Your task to perform on an android device: Install the Calendar app Image 0: 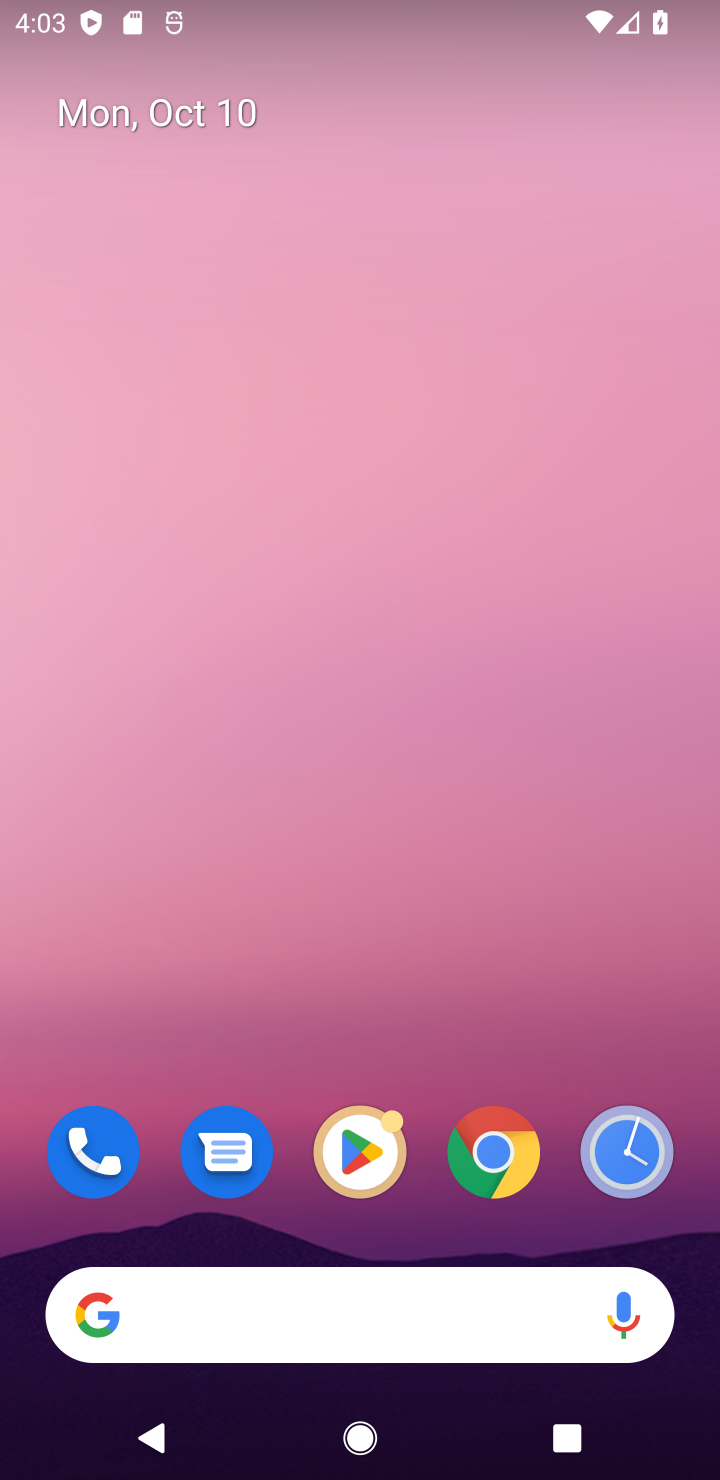
Step 0: drag from (275, 1317) to (263, 429)
Your task to perform on an android device: Install the Calendar app Image 1: 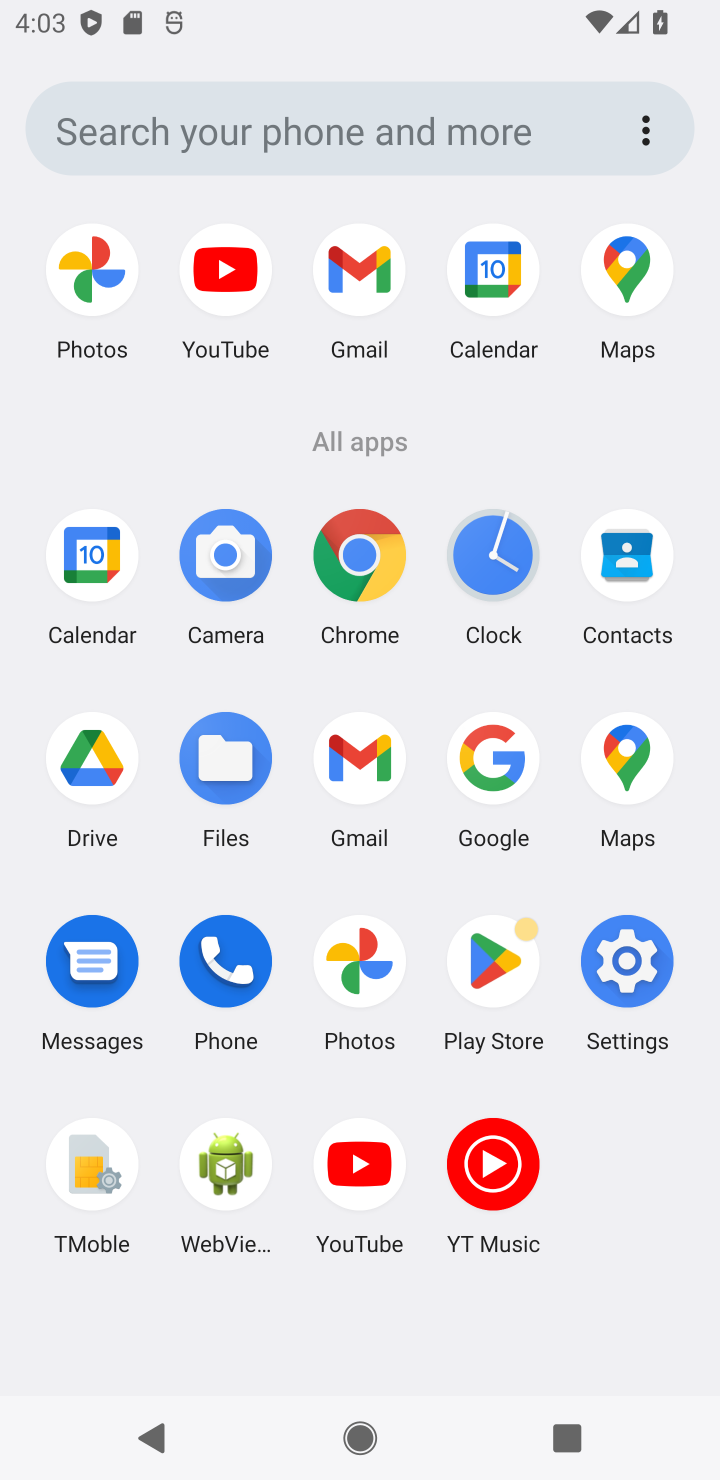
Step 1: click (503, 964)
Your task to perform on an android device: Install the Calendar app Image 2: 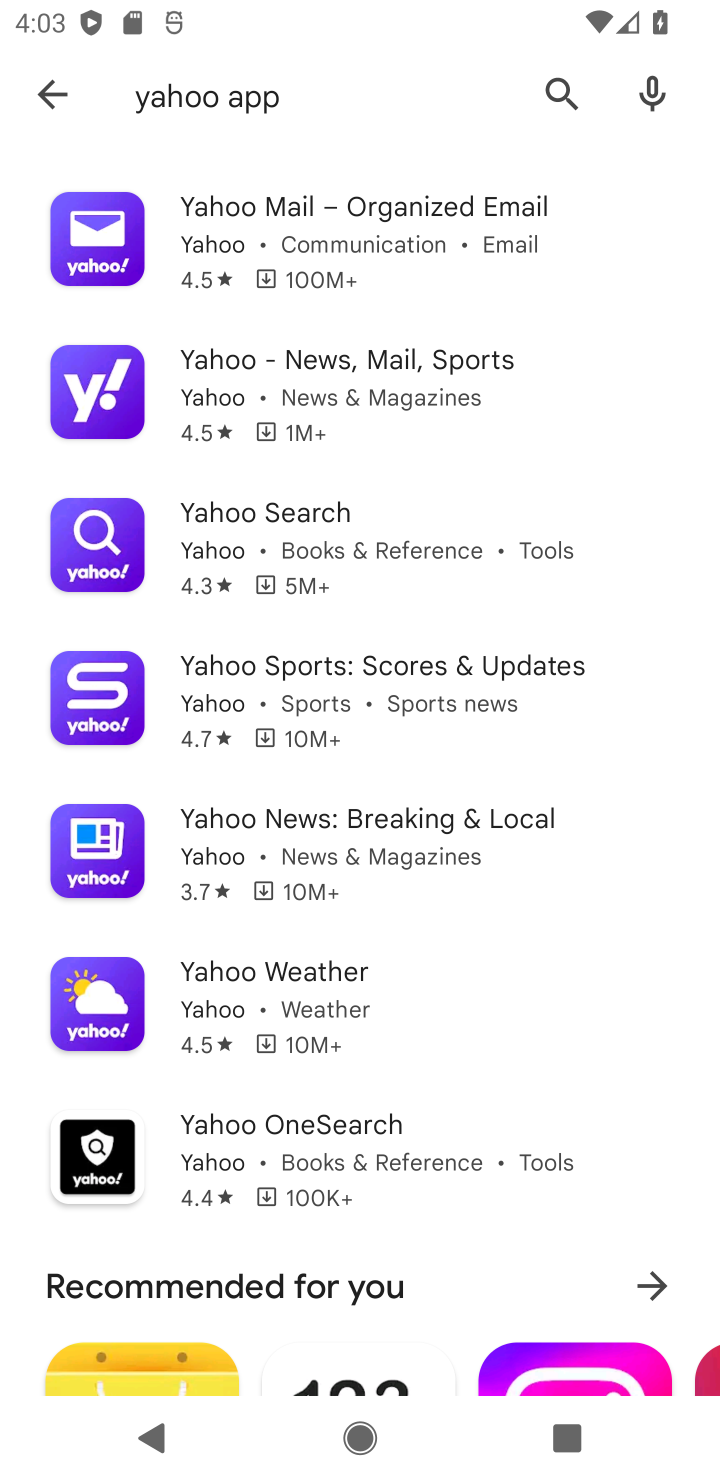
Step 2: click (556, 85)
Your task to perform on an android device: Install the Calendar app Image 3: 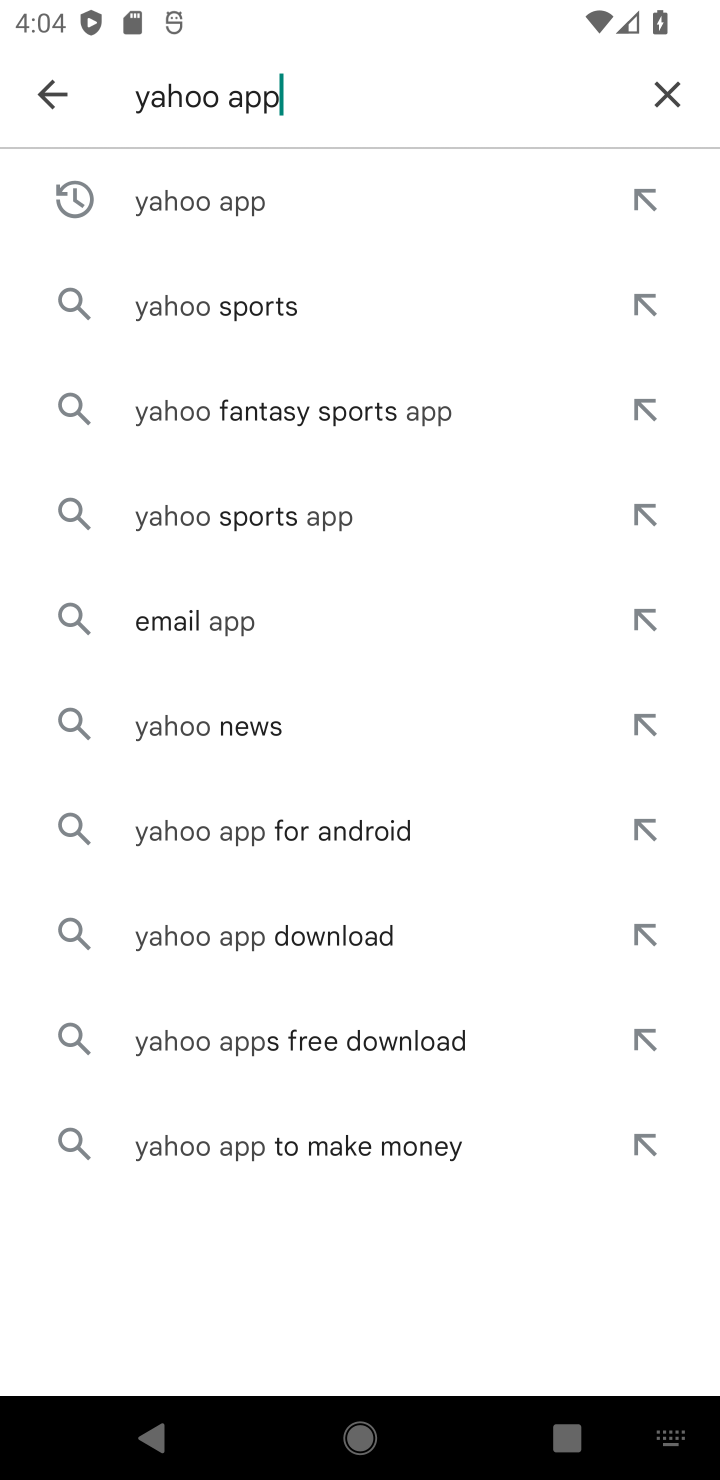
Step 3: click (654, 86)
Your task to perform on an android device: Install the Calendar app Image 4: 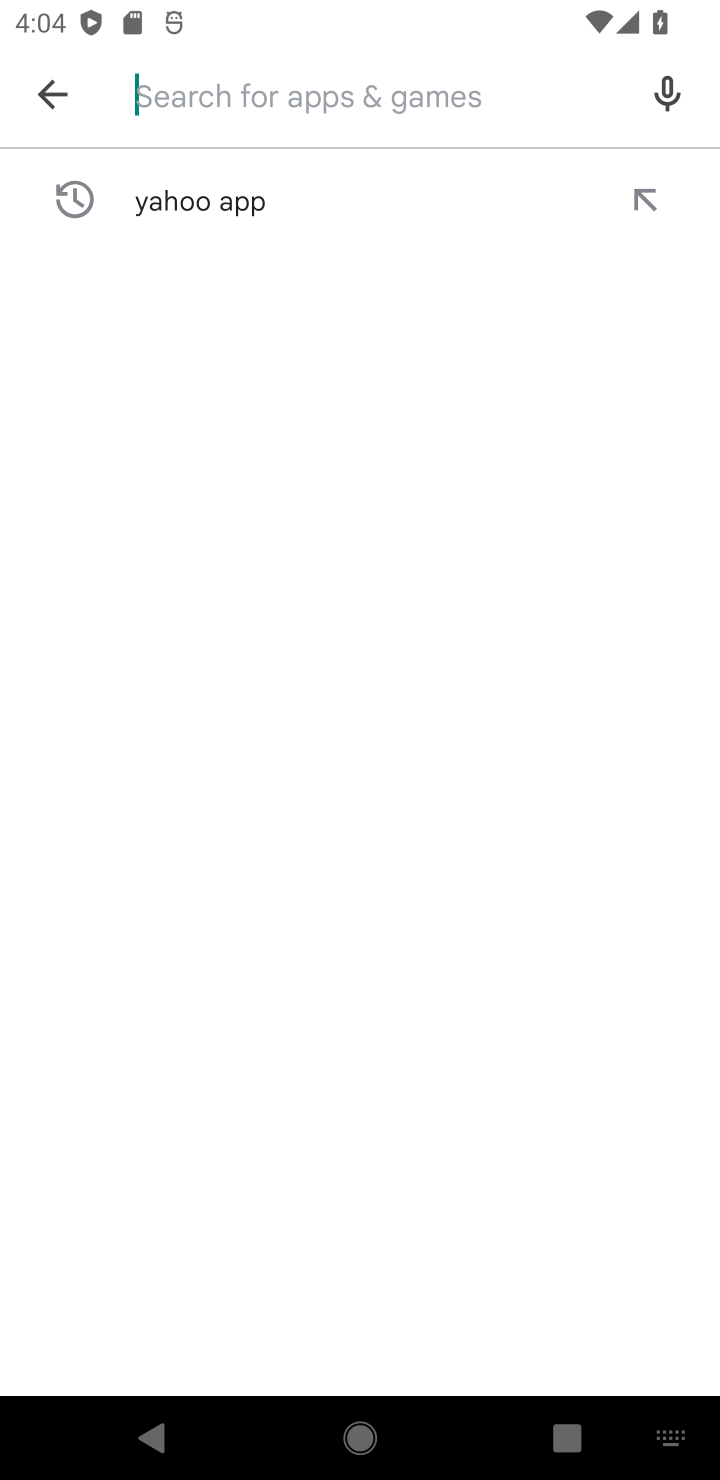
Step 4: type "Calendar app"
Your task to perform on an android device: Install the Calendar app Image 5: 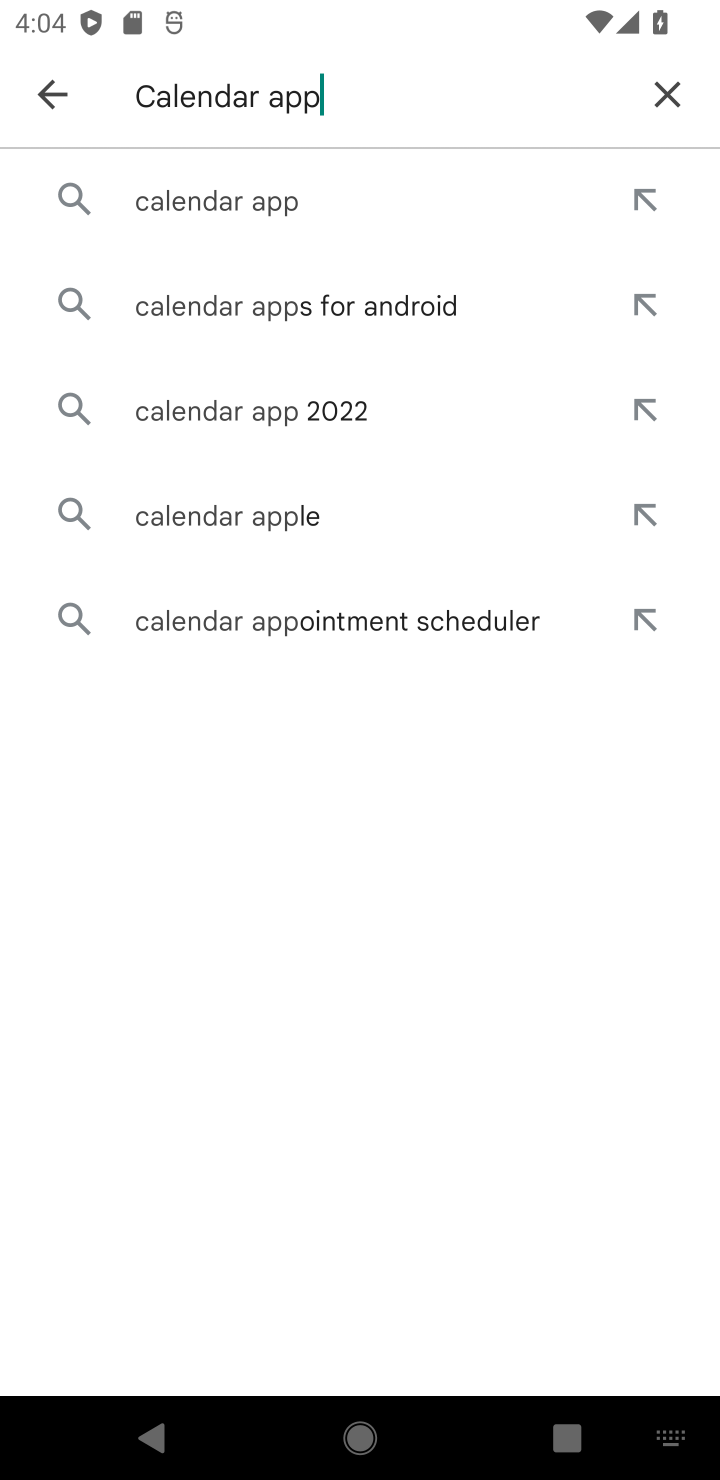
Step 5: click (178, 204)
Your task to perform on an android device: Install the Calendar app Image 6: 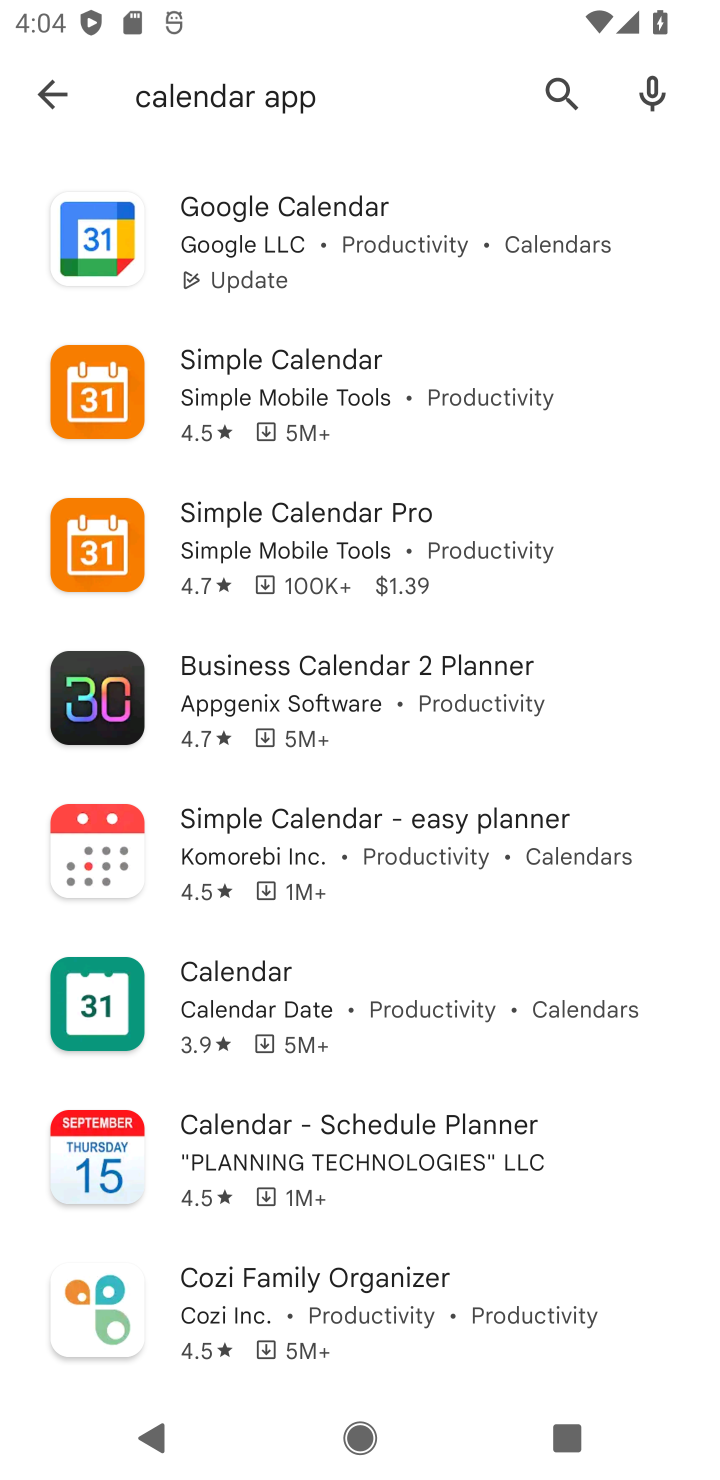
Step 6: click (285, 205)
Your task to perform on an android device: Install the Calendar app Image 7: 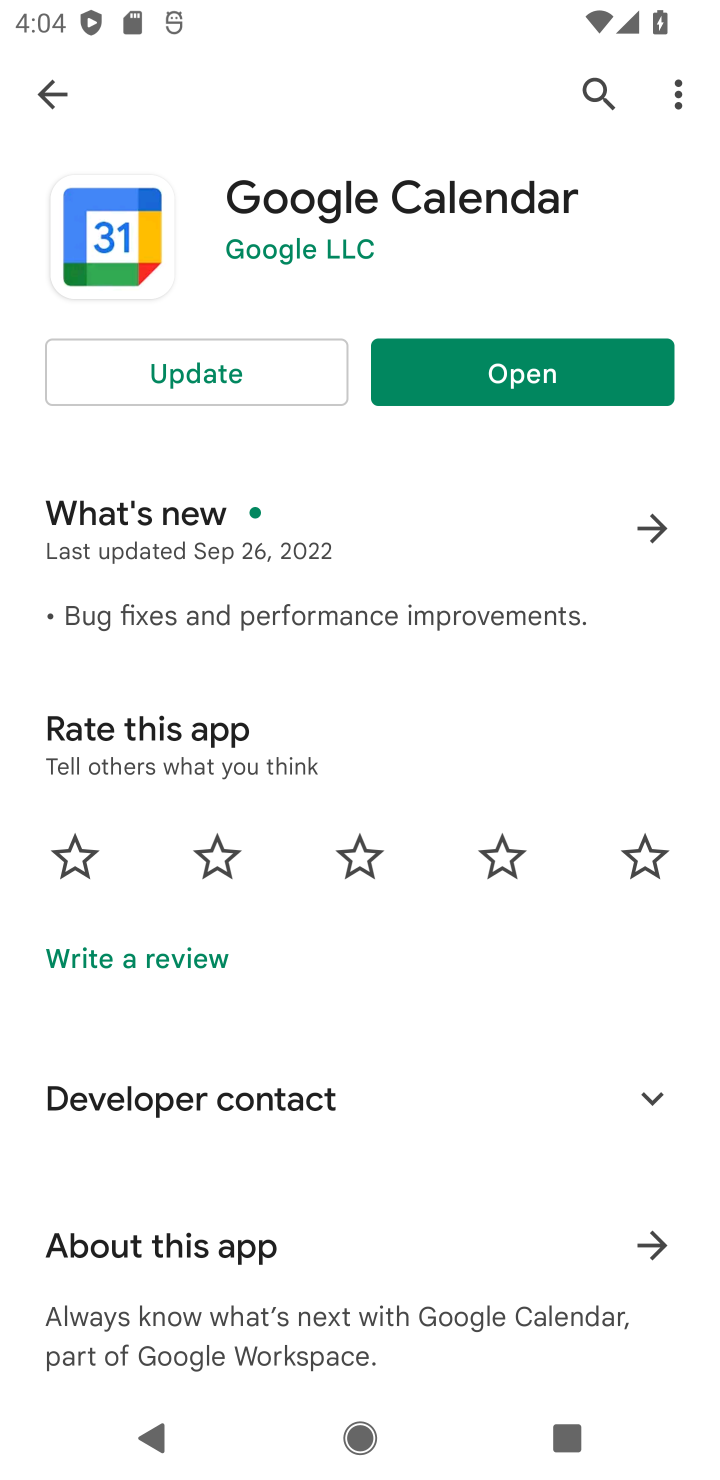
Step 7: click (232, 380)
Your task to perform on an android device: Install the Calendar app Image 8: 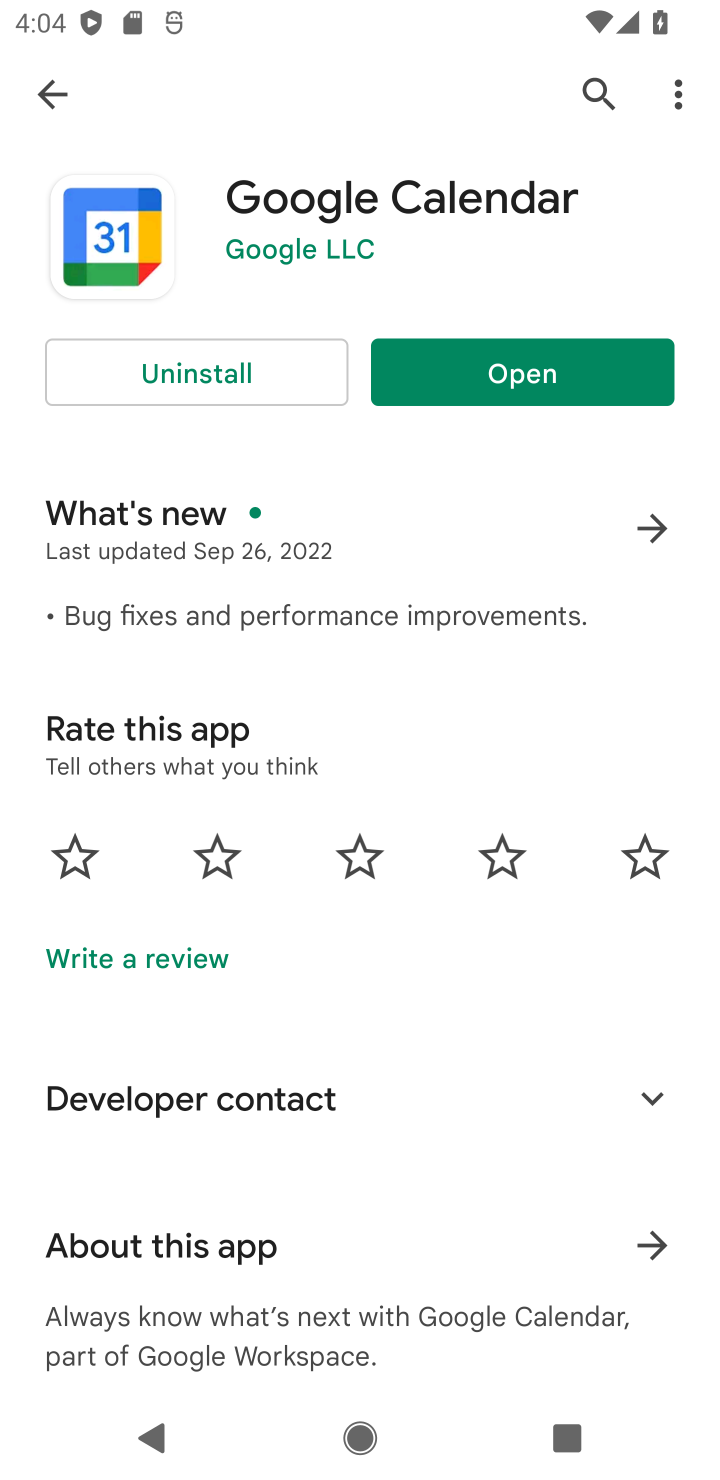
Step 8: task complete